Your task to perform on an android device: uninstall "Truecaller" Image 0: 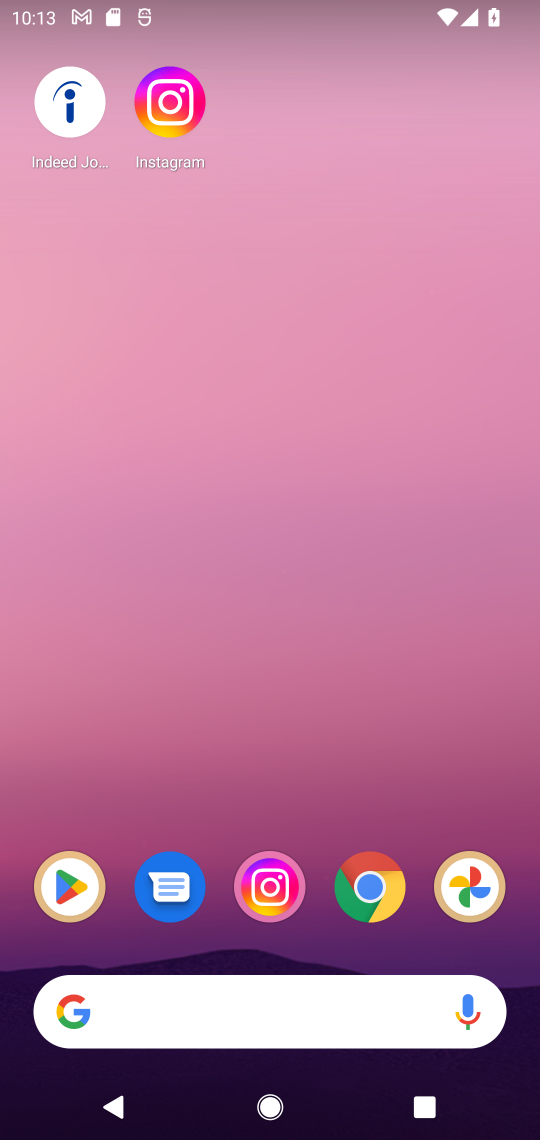
Step 0: drag from (276, 947) to (420, 54)
Your task to perform on an android device: uninstall "Truecaller" Image 1: 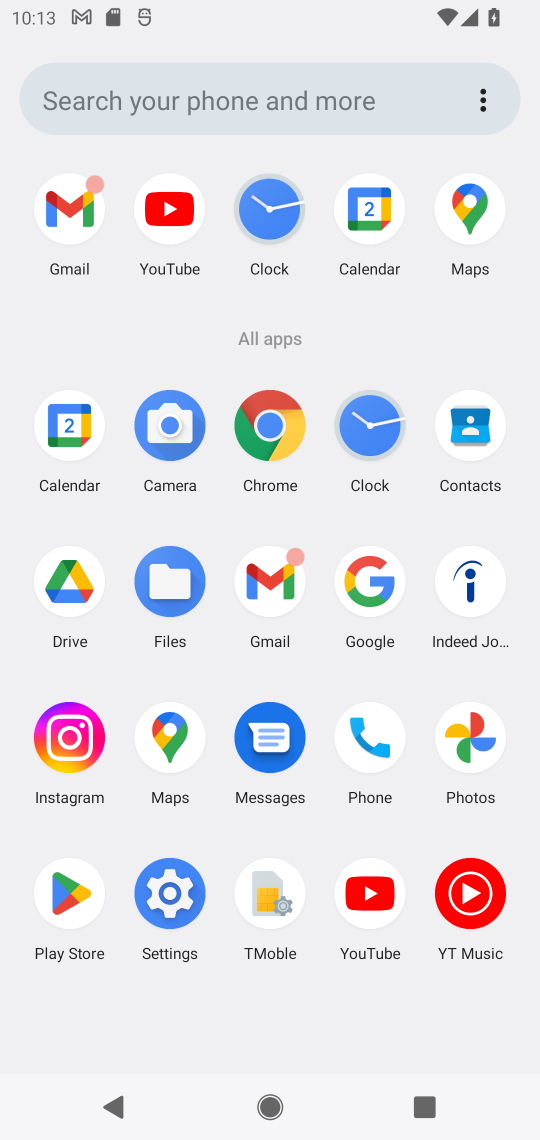
Step 1: click (79, 888)
Your task to perform on an android device: uninstall "Truecaller" Image 2: 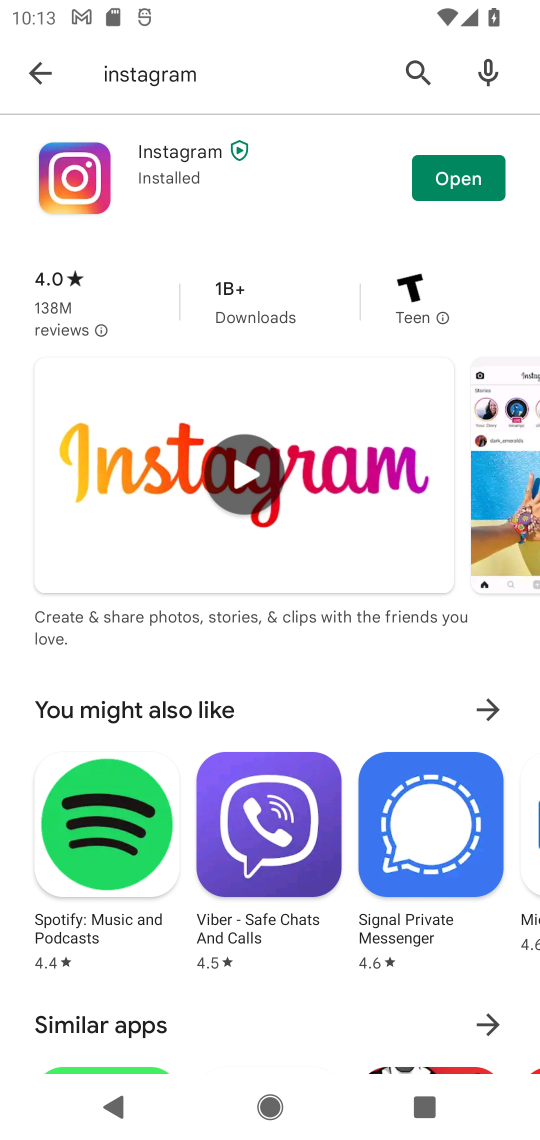
Step 2: click (22, 70)
Your task to perform on an android device: uninstall "Truecaller" Image 3: 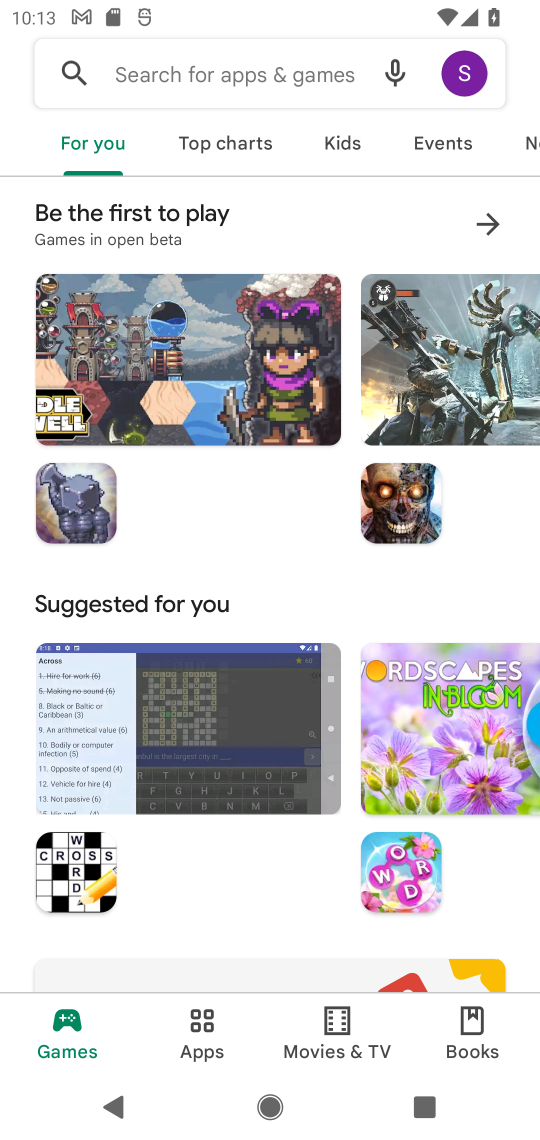
Step 3: click (201, 74)
Your task to perform on an android device: uninstall "Truecaller" Image 4: 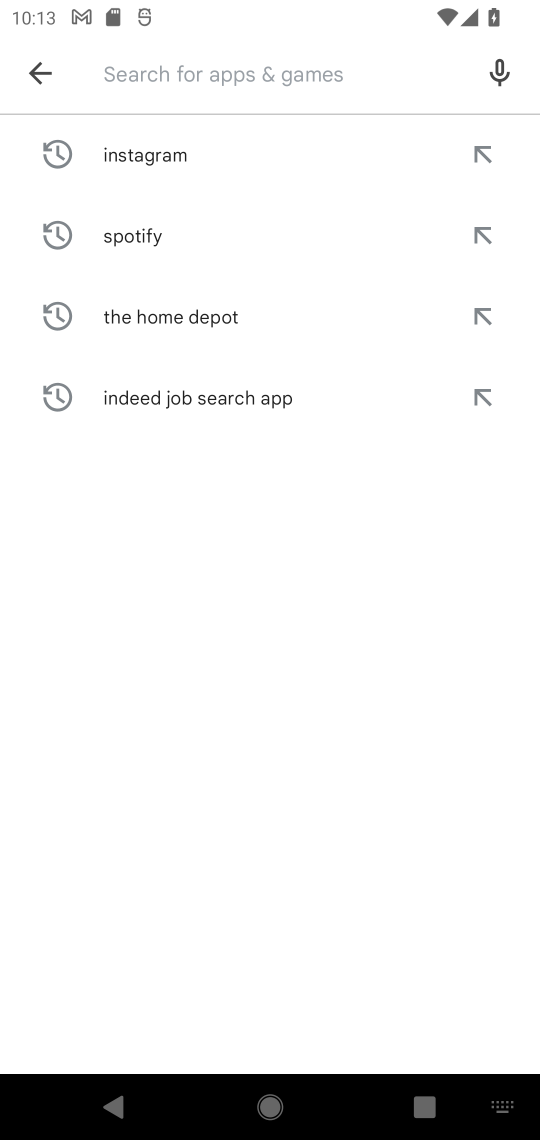
Step 4: type "Truecaller"
Your task to perform on an android device: uninstall "Truecaller" Image 5: 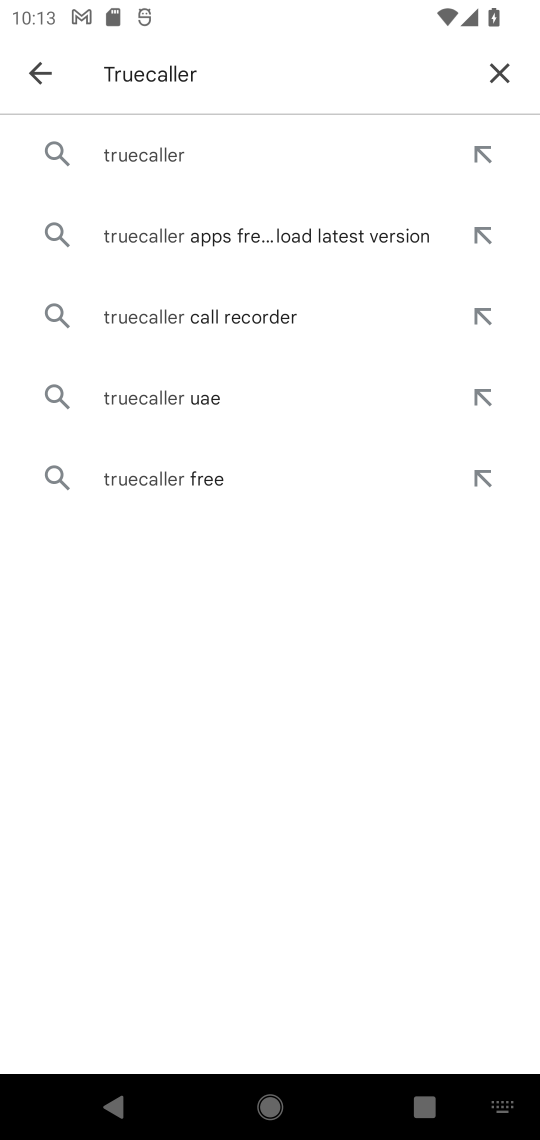
Step 5: click (153, 145)
Your task to perform on an android device: uninstall "Truecaller" Image 6: 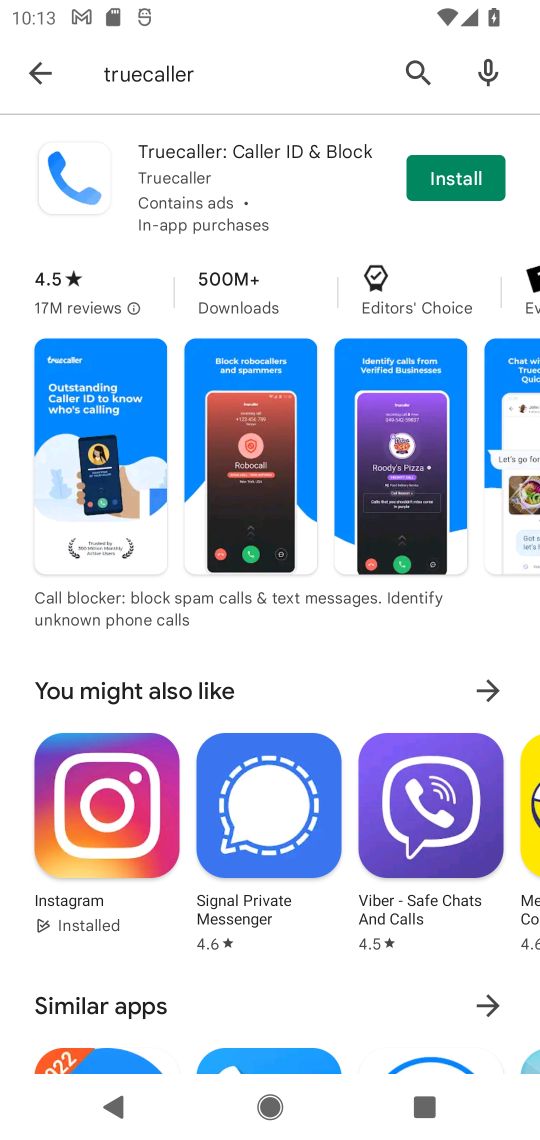
Step 6: click (204, 213)
Your task to perform on an android device: uninstall "Truecaller" Image 7: 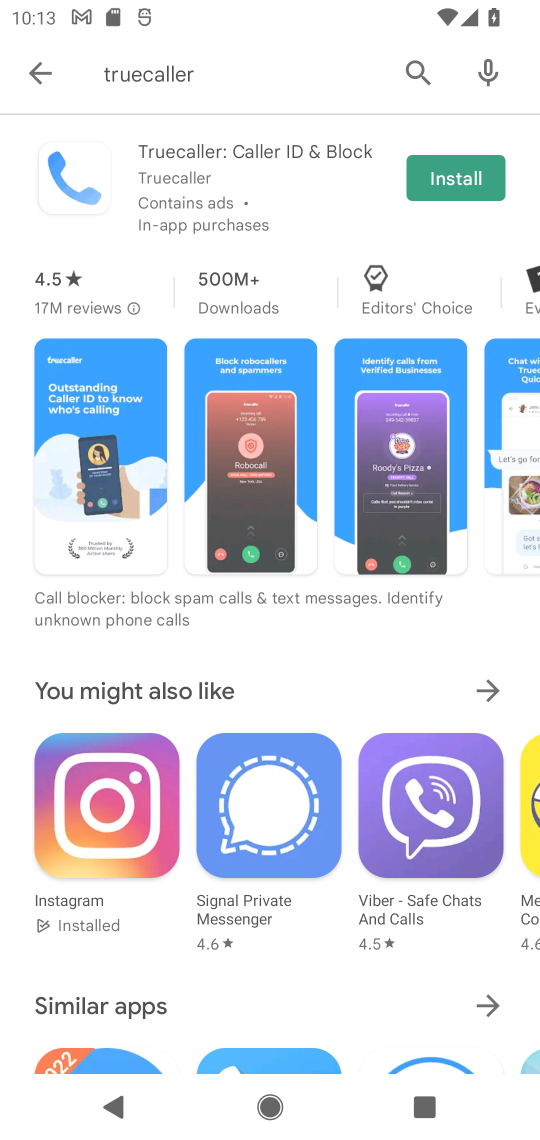
Step 7: task complete